Your task to perform on an android device: see tabs open on other devices in the chrome app Image 0: 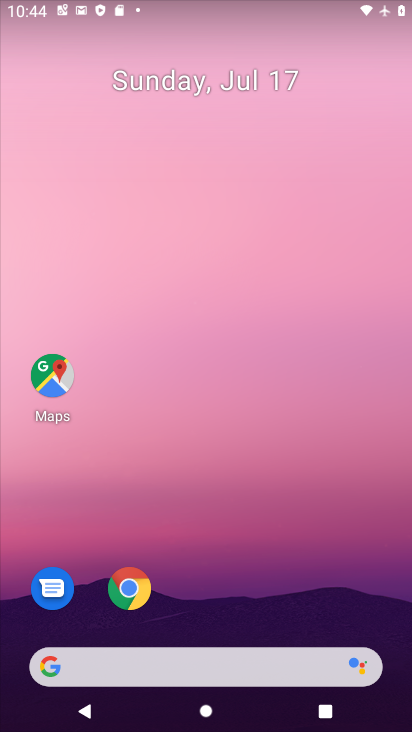
Step 0: press home button
Your task to perform on an android device: see tabs open on other devices in the chrome app Image 1: 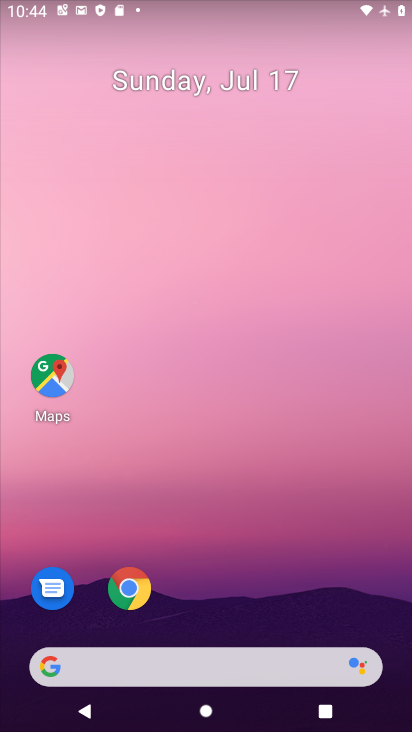
Step 1: drag from (285, 632) to (292, 253)
Your task to perform on an android device: see tabs open on other devices in the chrome app Image 2: 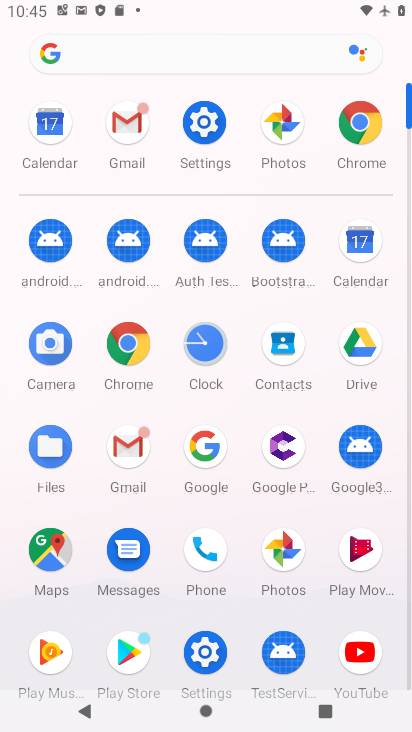
Step 2: click (353, 148)
Your task to perform on an android device: see tabs open on other devices in the chrome app Image 3: 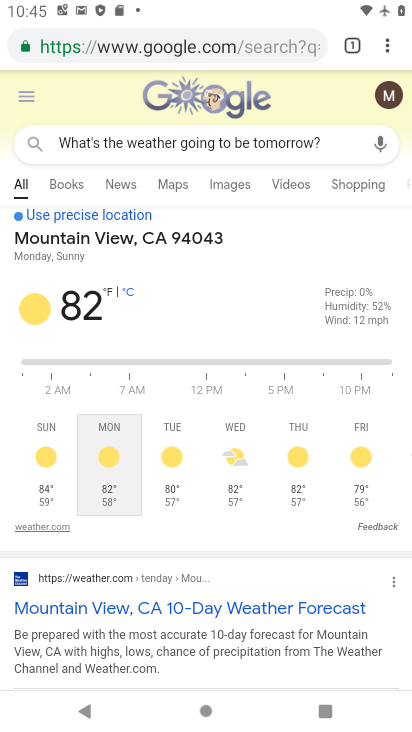
Step 3: task complete